Your task to perform on an android device: Set the phone to "Do not disturb". Image 0: 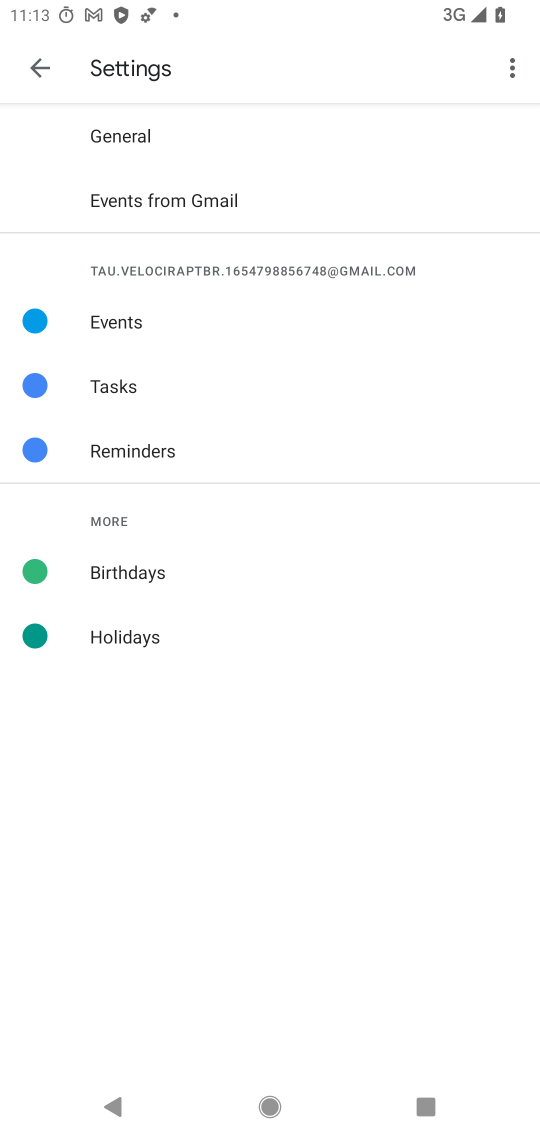
Step 0: press home button
Your task to perform on an android device: Set the phone to "Do not disturb". Image 1: 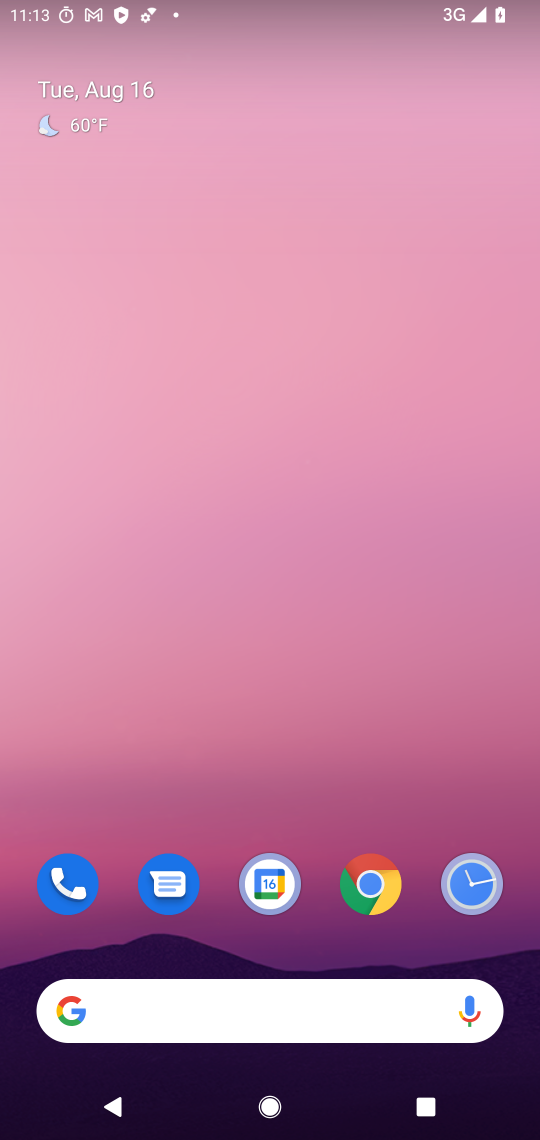
Step 1: drag from (240, 938) to (240, 130)
Your task to perform on an android device: Set the phone to "Do not disturb". Image 2: 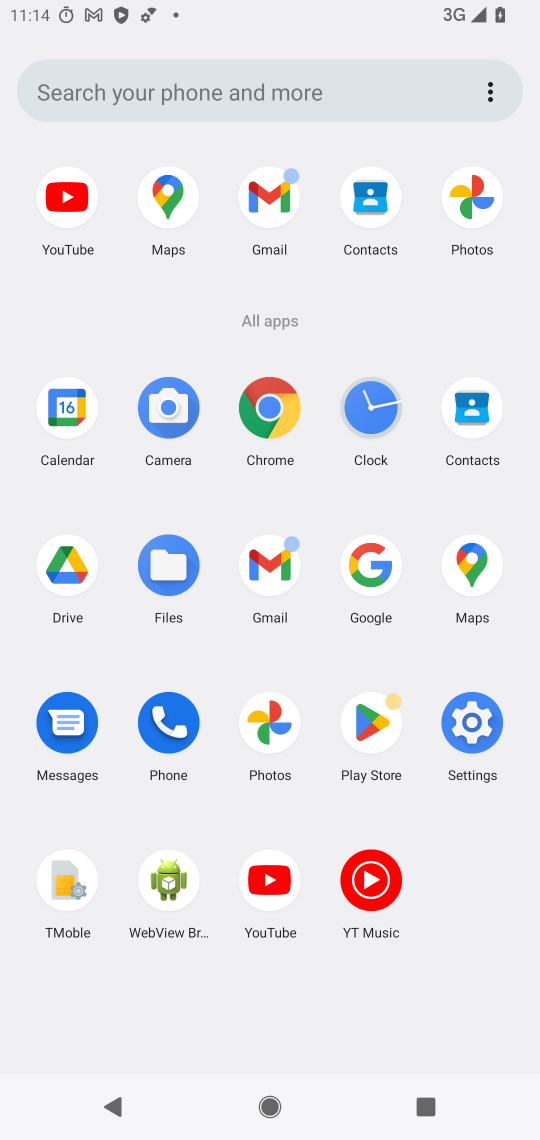
Step 2: click (473, 724)
Your task to perform on an android device: Set the phone to "Do not disturb". Image 3: 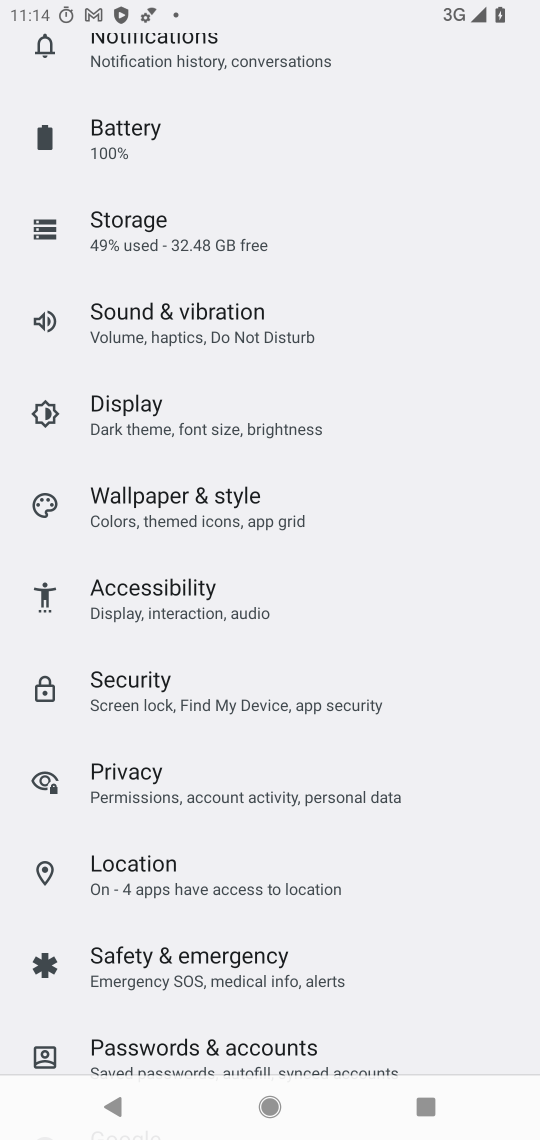
Step 3: click (212, 337)
Your task to perform on an android device: Set the phone to "Do not disturb". Image 4: 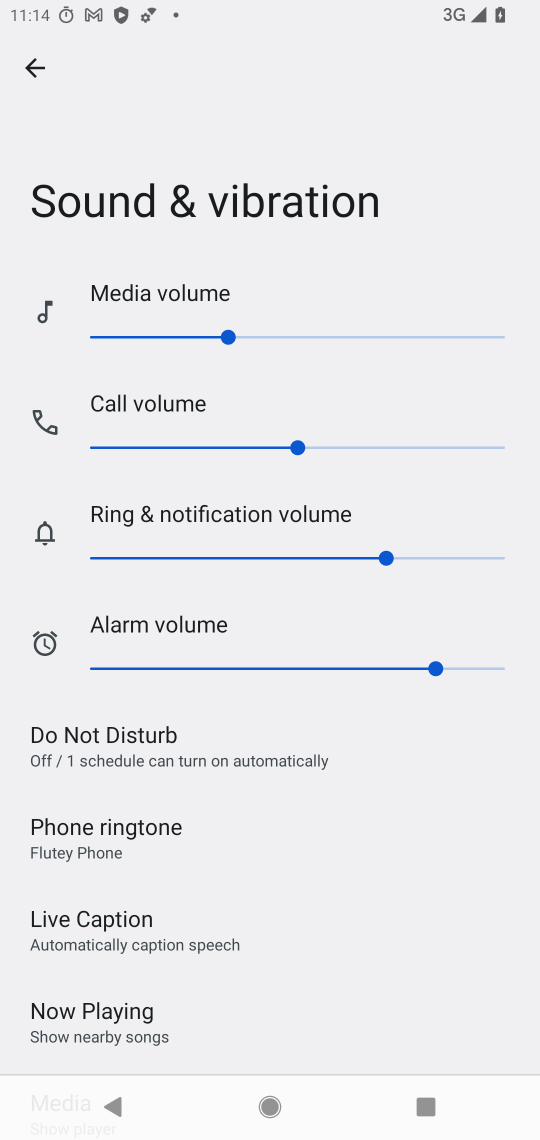
Step 4: click (123, 741)
Your task to perform on an android device: Set the phone to "Do not disturb". Image 5: 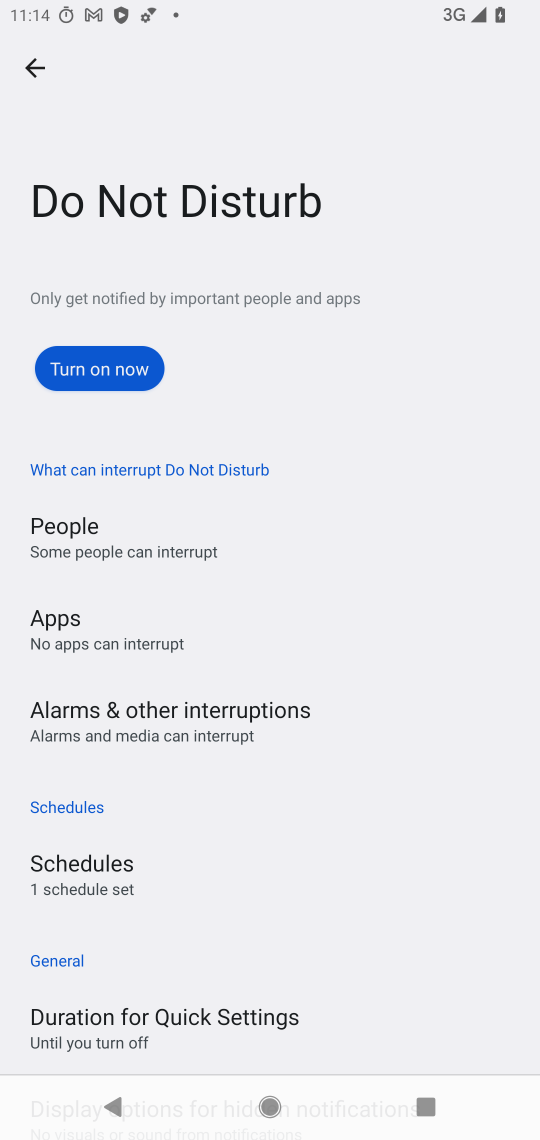
Step 5: click (98, 371)
Your task to perform on an android device: Set the phone to "Do not disturb". Image 6: 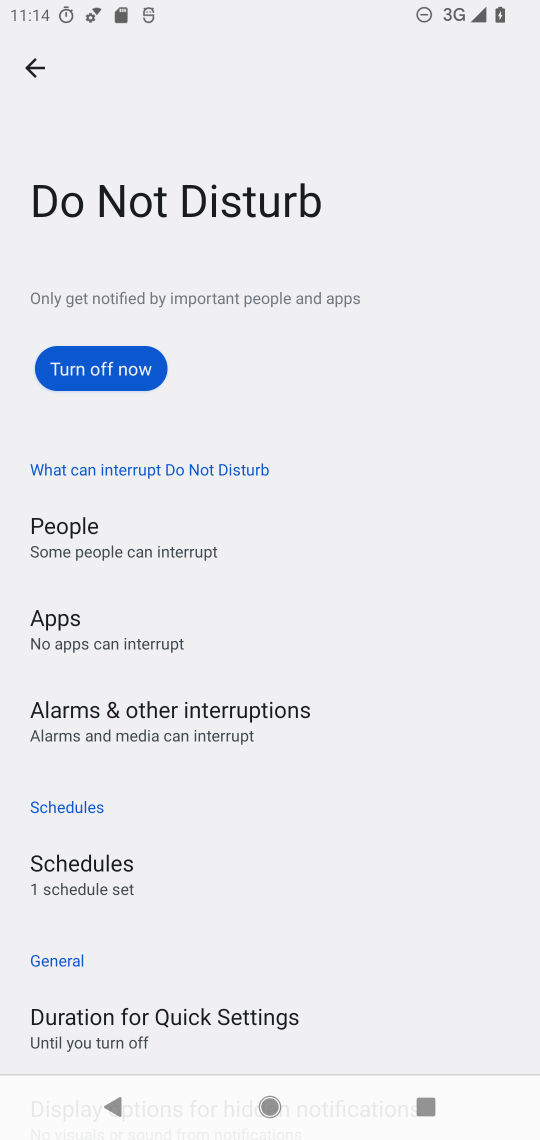
Step 6: task complete